Your task to perform on an android device: change the clock style Image 0: 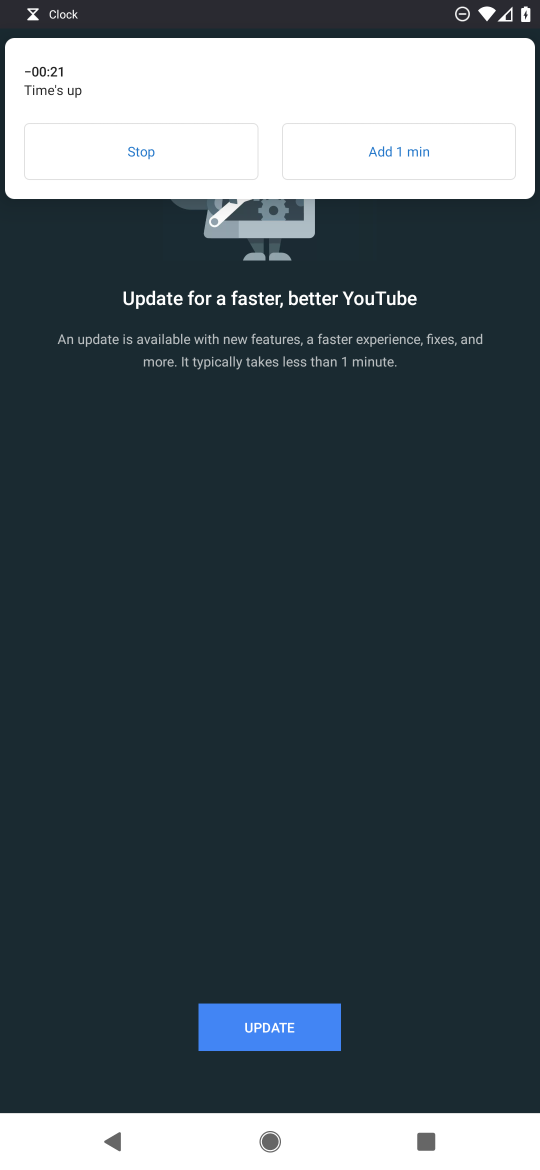
Step 0: press home button
Your task to perform on an android device: change the clock style Image 1: 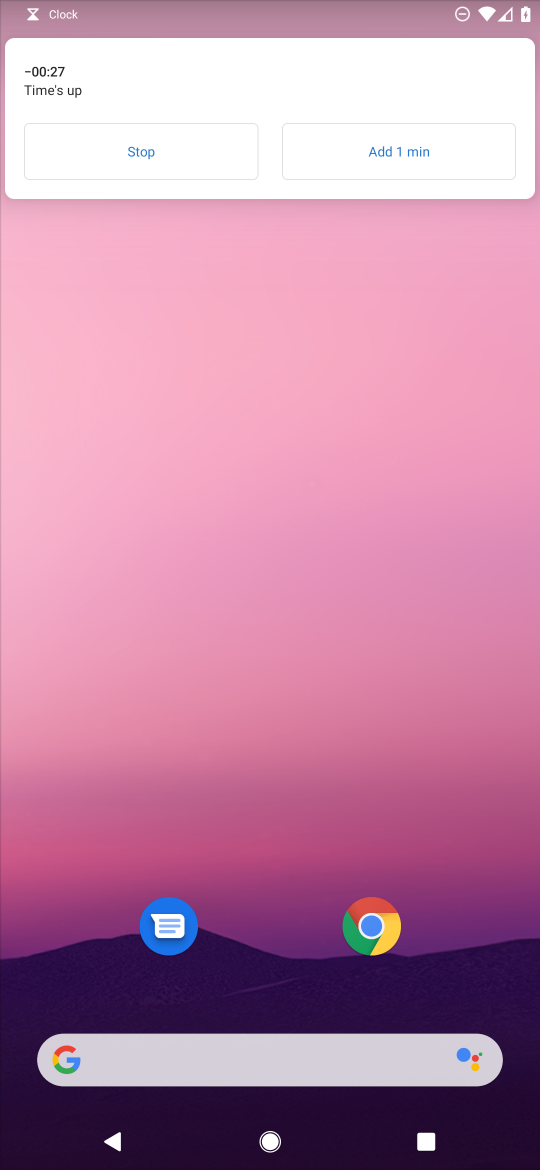
Step 1: click (147, 163)
Your task to perform on an android device: change the clock style Image 2: 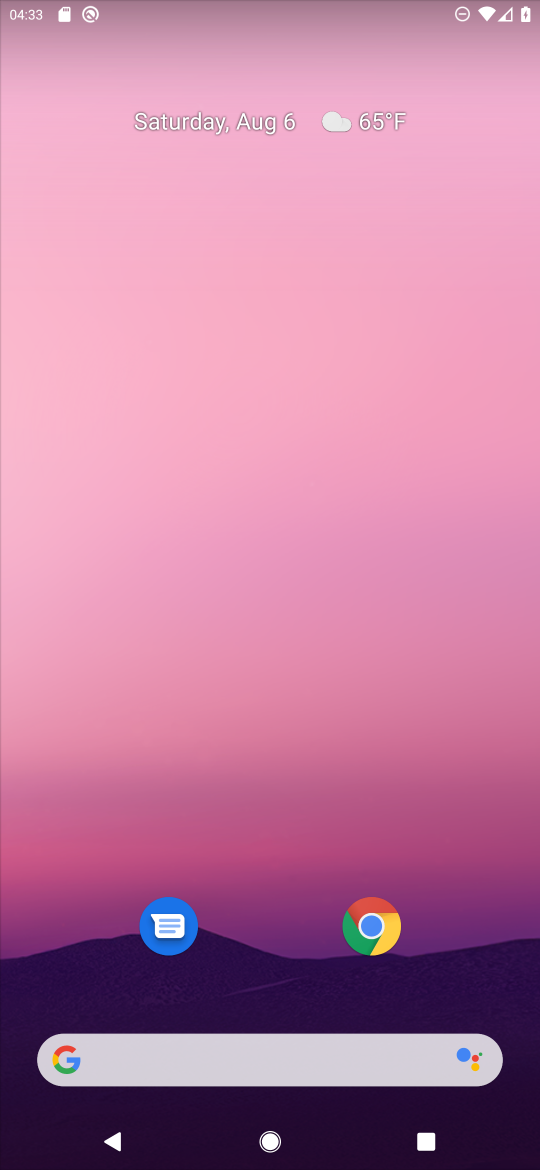
Step 2: drag from (277, 830) to (277, 284)
Your task to perform on an android device: change the clock style Image 3: 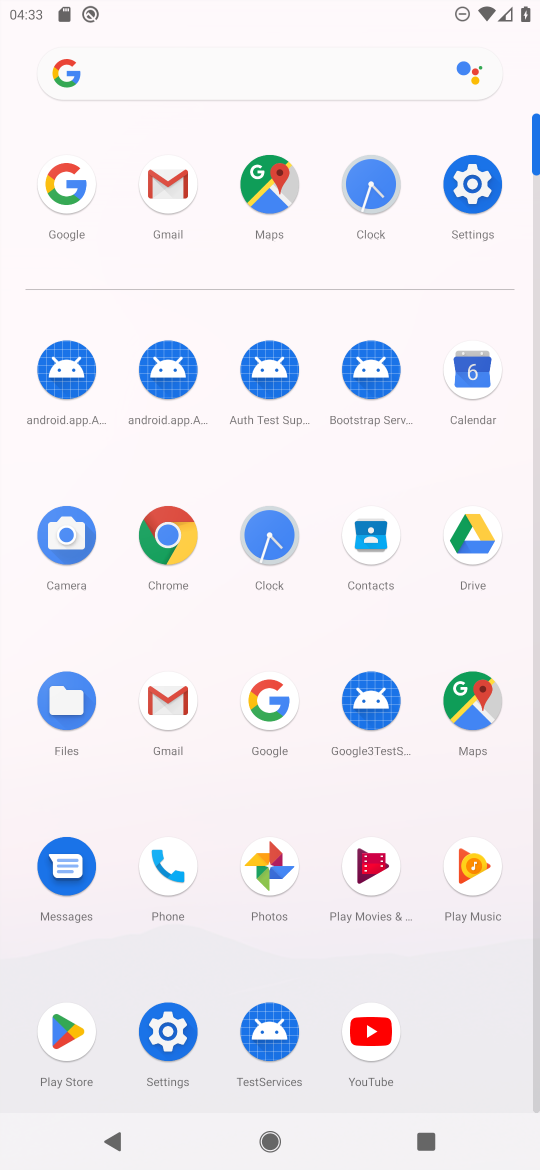
Step 3: click (360, 212)
Your task to perform on an android device: change the clock style Image 4: 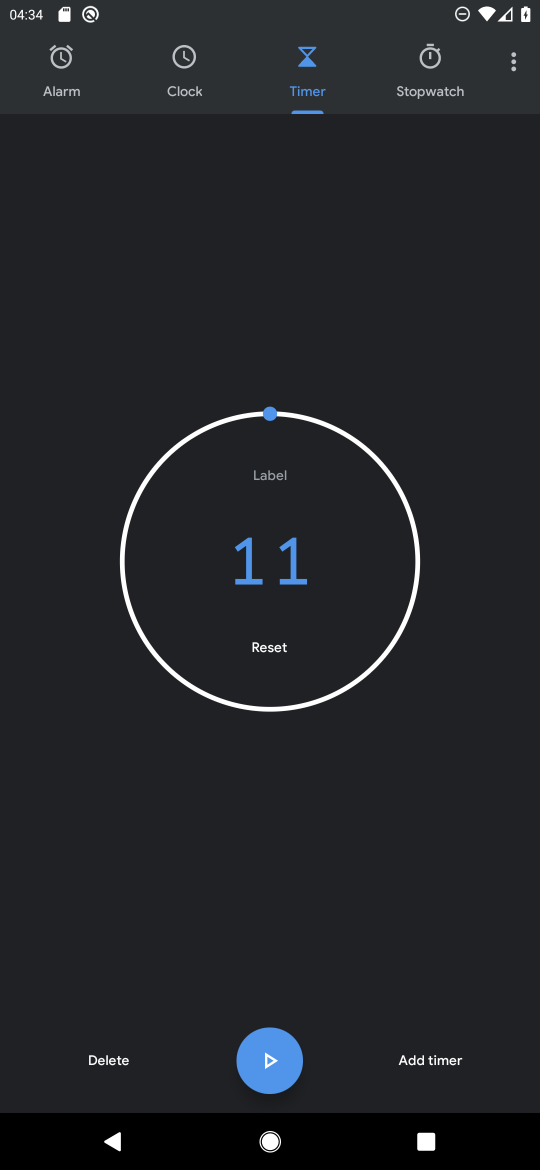
Step 4: click (515, 69)
Your task to perform on an android device: change the clock style Image 5: 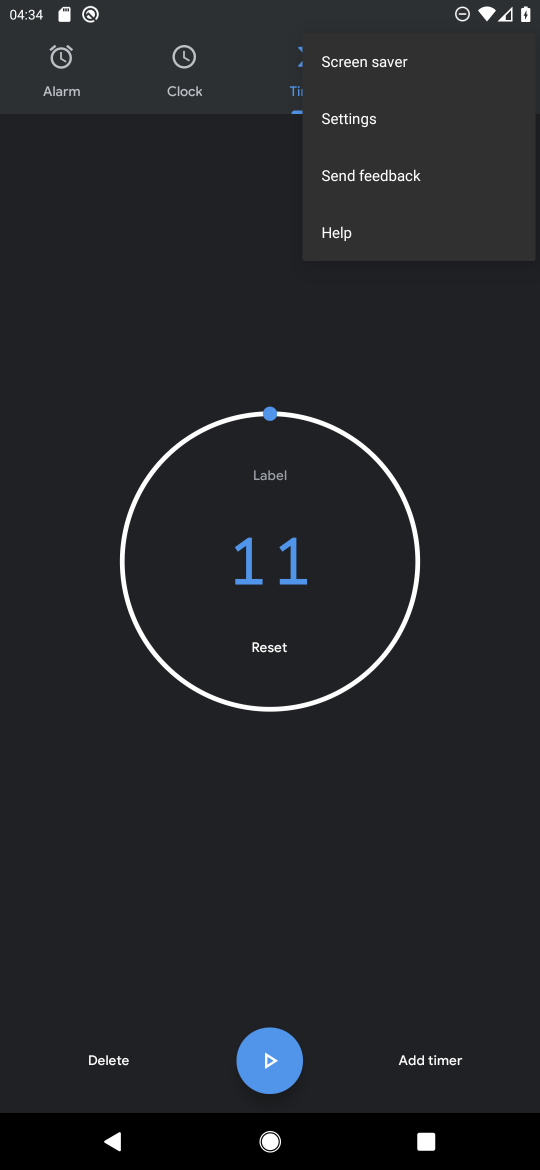
Step 5: click (396, 115)
Your task to perform on an android device: change the clock style Image 6: 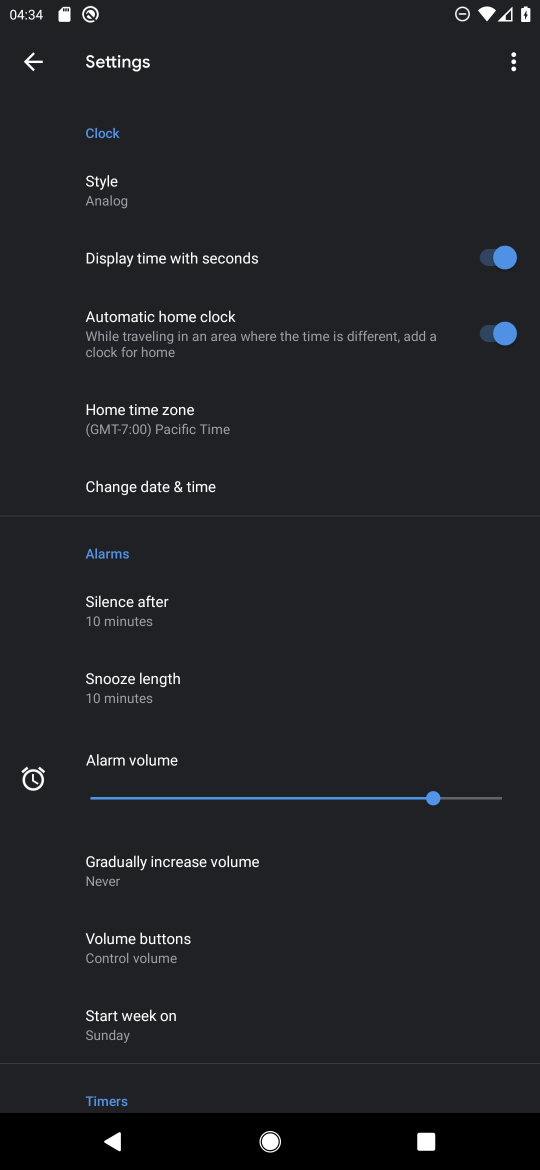
Step 6: click (152, 182)
Your task to perform on an android device: change the clock style Image 7: 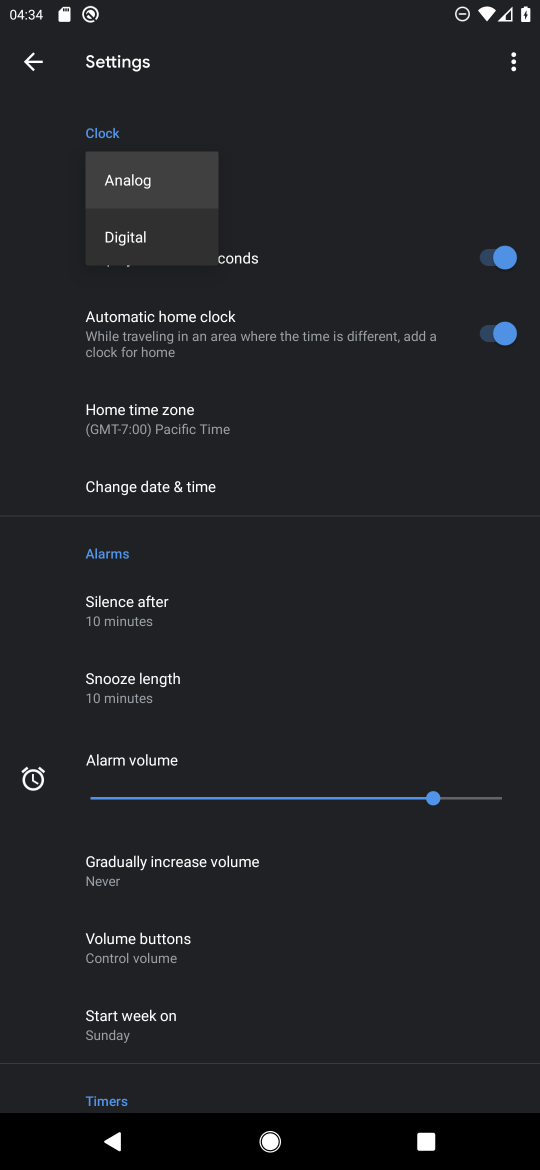
Step 7: click (159, 234)
Your task to perform on an android device: change the clock style Image 8: 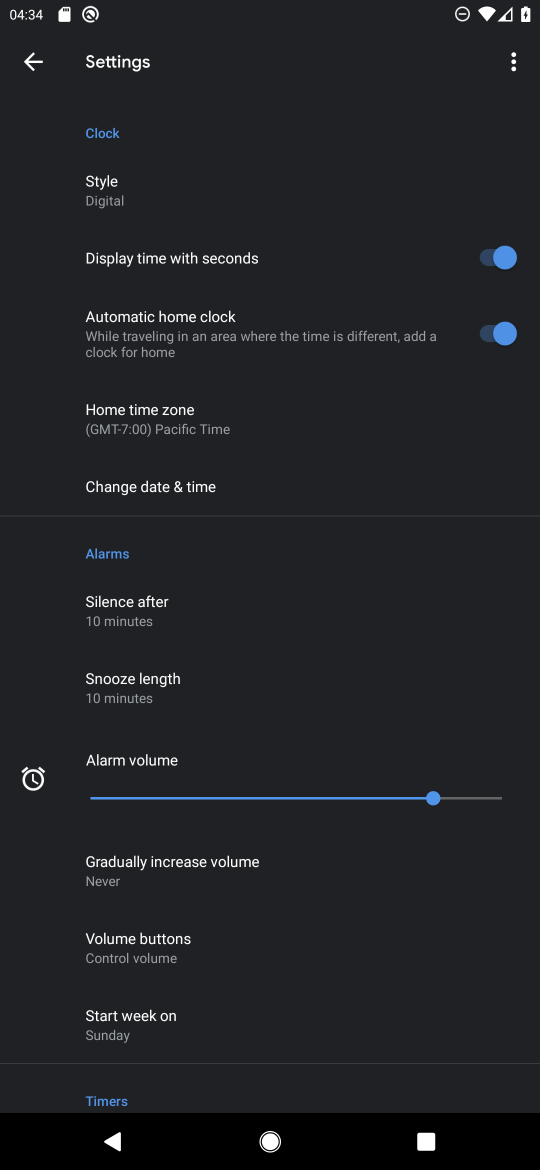
Step 8: task complete